Your task to perform on an android device: turn vacation reply on in the gmail app Image 0: 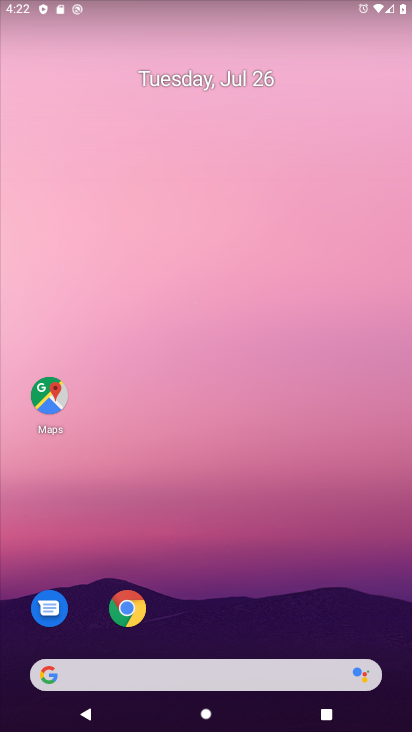
Step 0: drag from (384, 712) to (344, 182)
Your task to perform on an android device: turn vacation reply on in the gmail app Image 1: 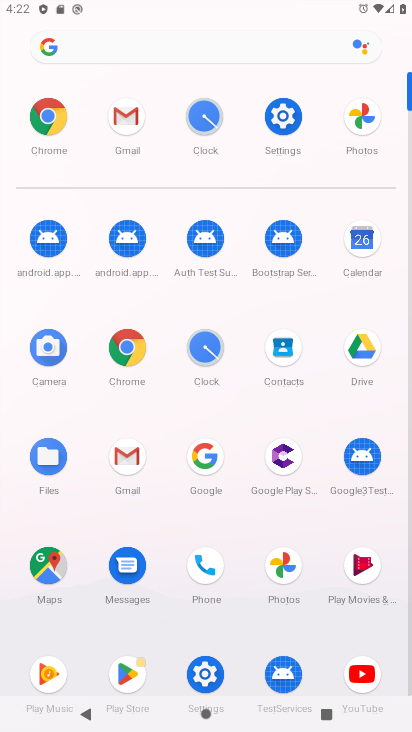
Step 1: click (134, 462)
Your task to perform on an android device: turn vacation reply on in the gmail app Image 2: 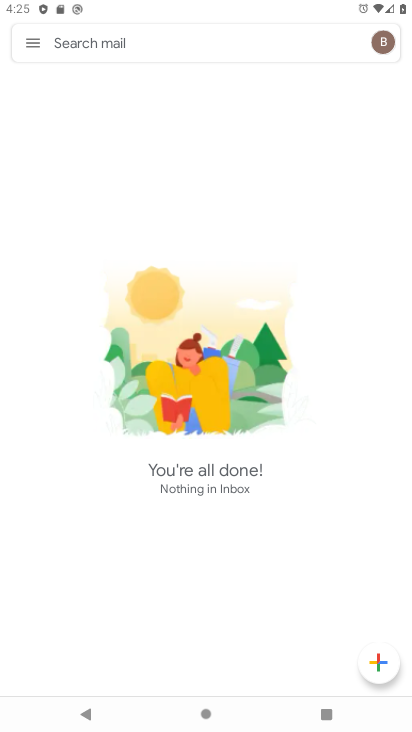
Step 2: click (29, 44)
Your task to perform on an android device: turn vacation reply on in the gmail app Image 3: 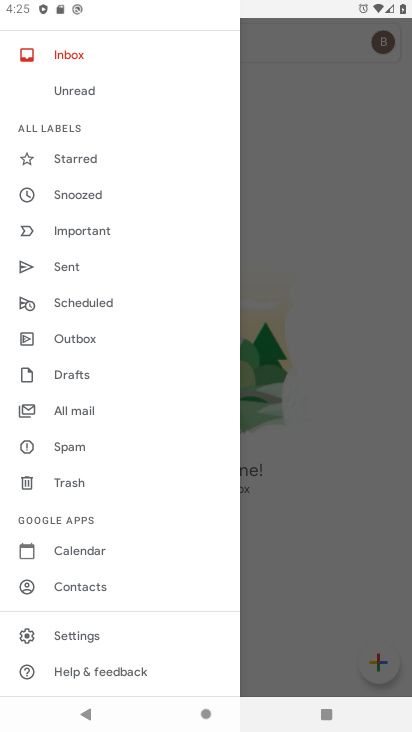
Step 3: click (68, 639)
Your task to perform on an android device: turn vacation reply on in the gmail app Image 4: 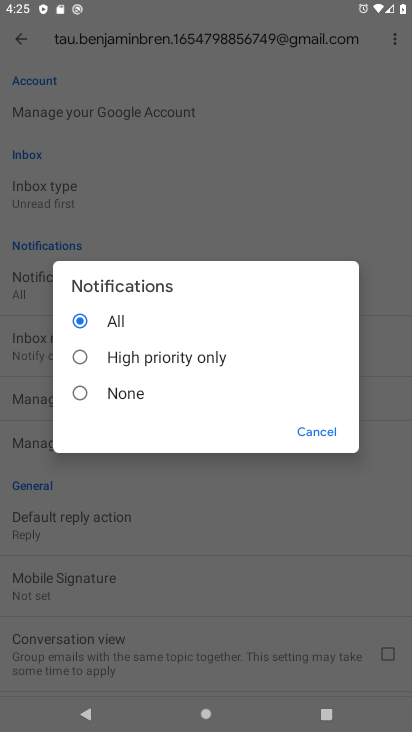
Step 4: press home button
Your task to perform on an android device: turn vacation reply on in the gmail app Image 5: 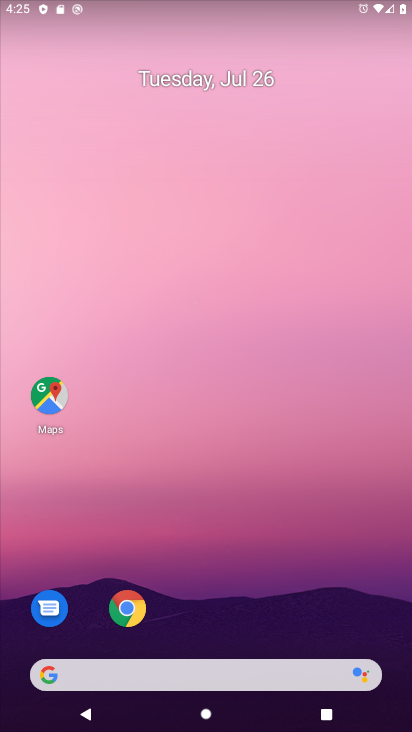
Step 5: drag from (392, 658) to (341, 172)
Your task to perform on an android device: turn vacation reply on in the gmail app Image 6: 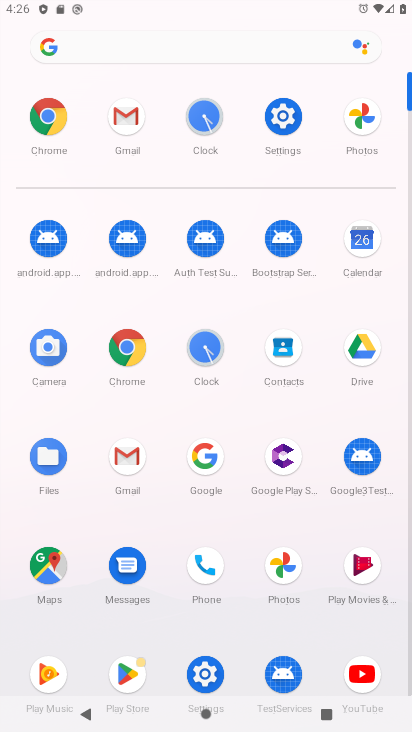
Step 6: click (131, 468)
Your task to perform on an android device: turn vacation reply on in the gmail app Image 7: 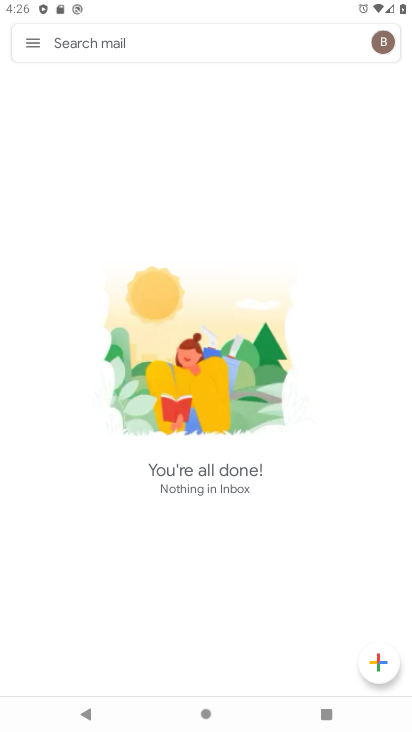
Step 7: click (26, 41)
Your task to perform on an android device: turn vacation reply on in the gmail app Image 8: 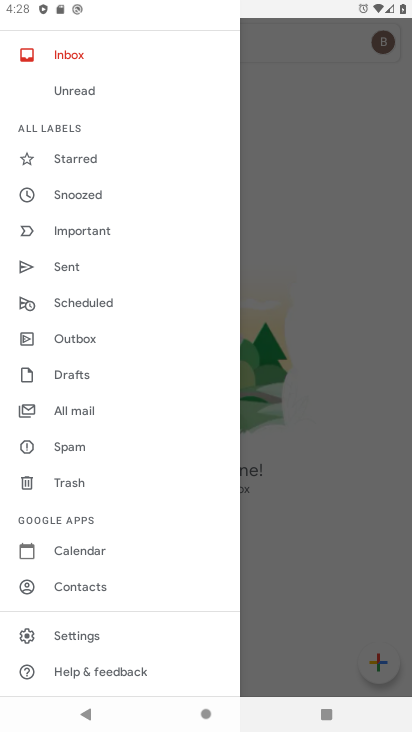
Step 8: click (72, 632)
Your task to perform on an android device: turn vacation reply on in the gmail app Image 9: 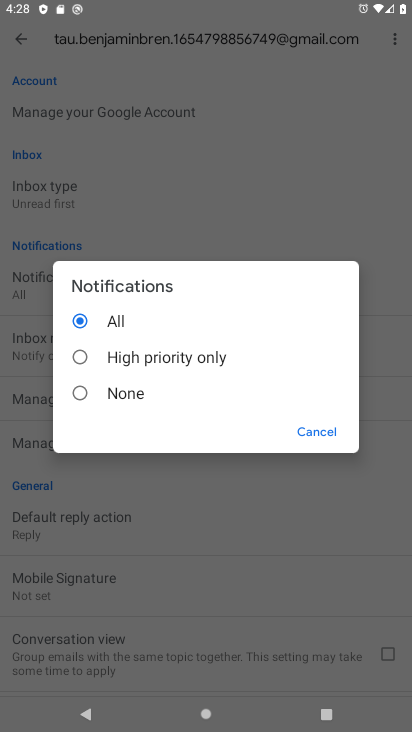
Step 9: press back button
Your task to perform on an android device: turn vacation reply on in the gmail app Image 10: 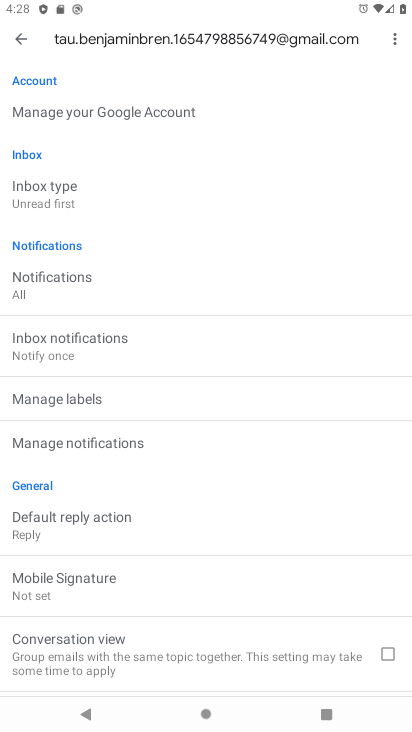
Step 10: drag from (224, 610) to (234, 379)
Your task to perform on an android device: turn vacation reply on in the gmail app Image 11: 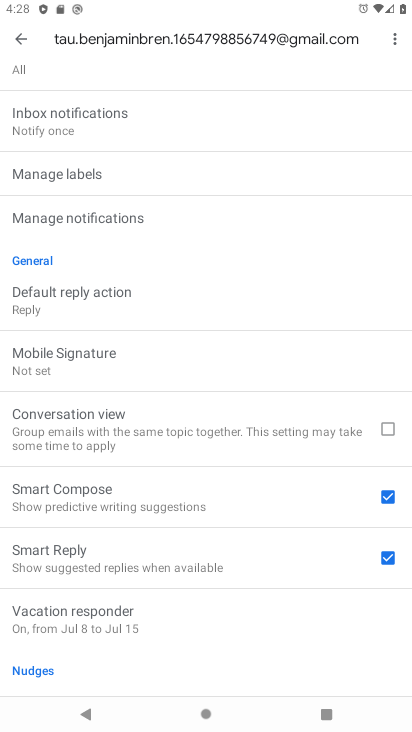
Step 11: click (60, 621)
Your task to perform on an android device: turn vacation reply on in the gmail app Image 12: 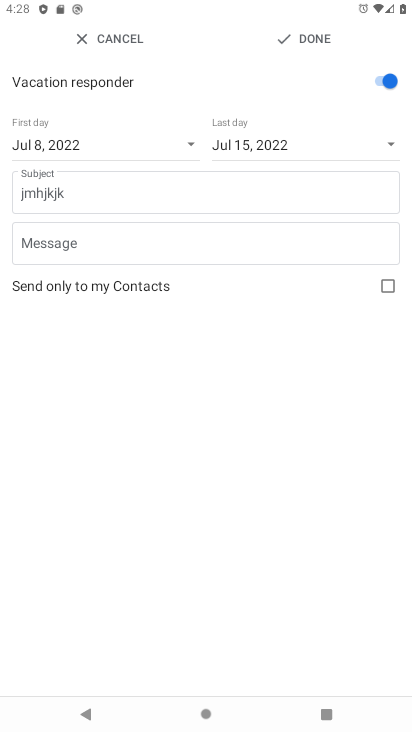
Step 12: task complete